Your task to perform on an android device: open app "HBO Max: Stream TV & Movies" (install if not already installed) Image 0: 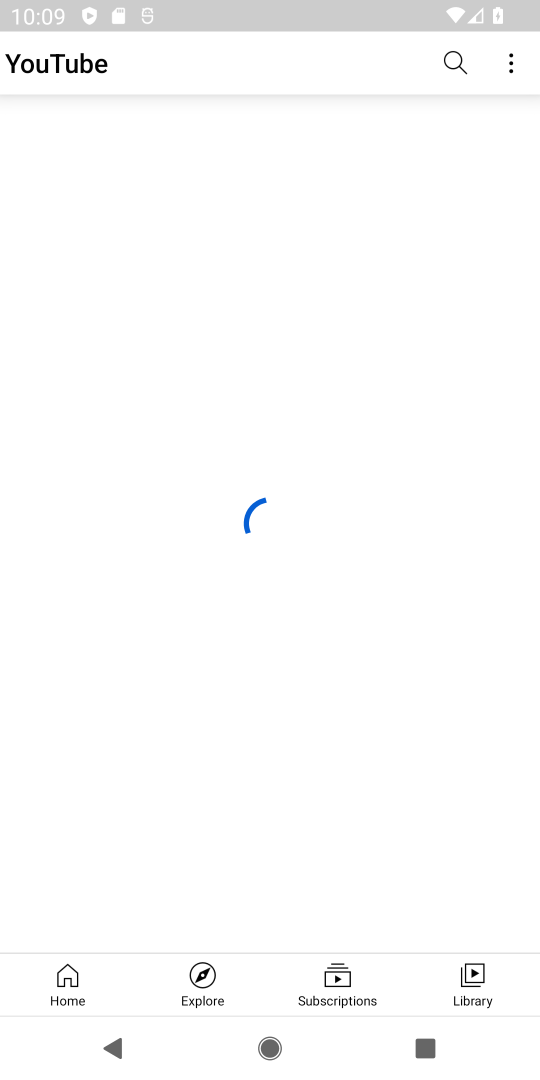
Step 0: press home button
Your task to perform on an android device: open app "HBO Max: Stream TV & Movies" (install if not already installed) Image 1: 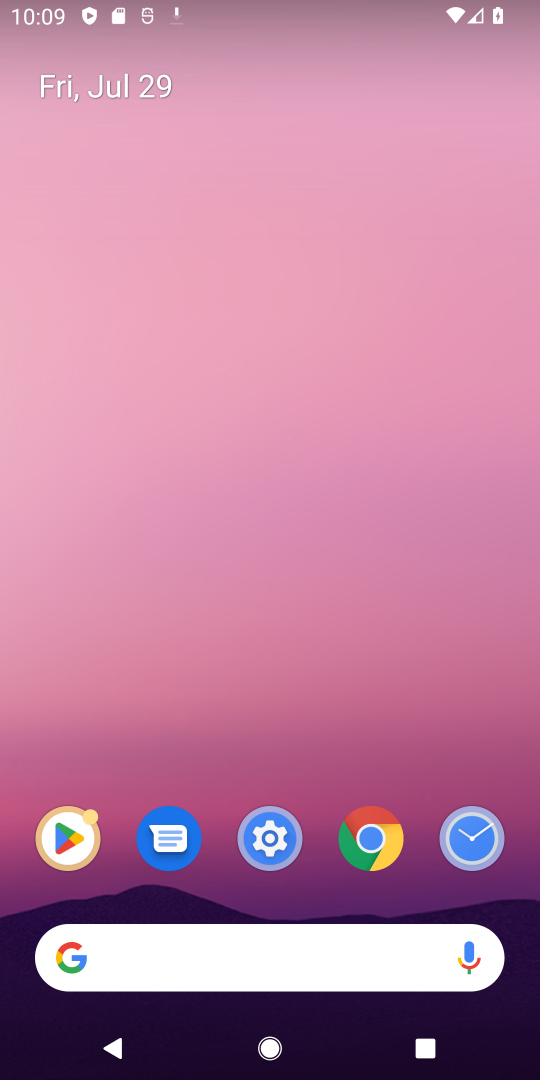
Step 1: drag from (315, 957) to (538, 19)
Your task to perform on an android device: open app "HBO Max: Stream TV & Movies" (install if not already installed) Image 2: 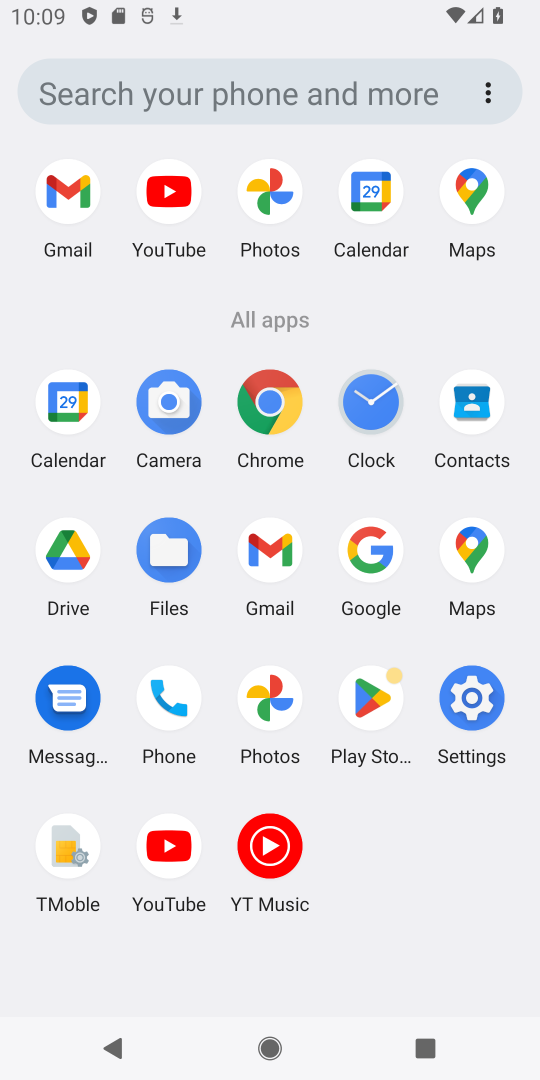
Step 2: drag from (374, 701) to (284, 552)
Your task to perform on an android device: open app "HBO Max: Stream TV & Movies" (install if not already installed) Image 3: 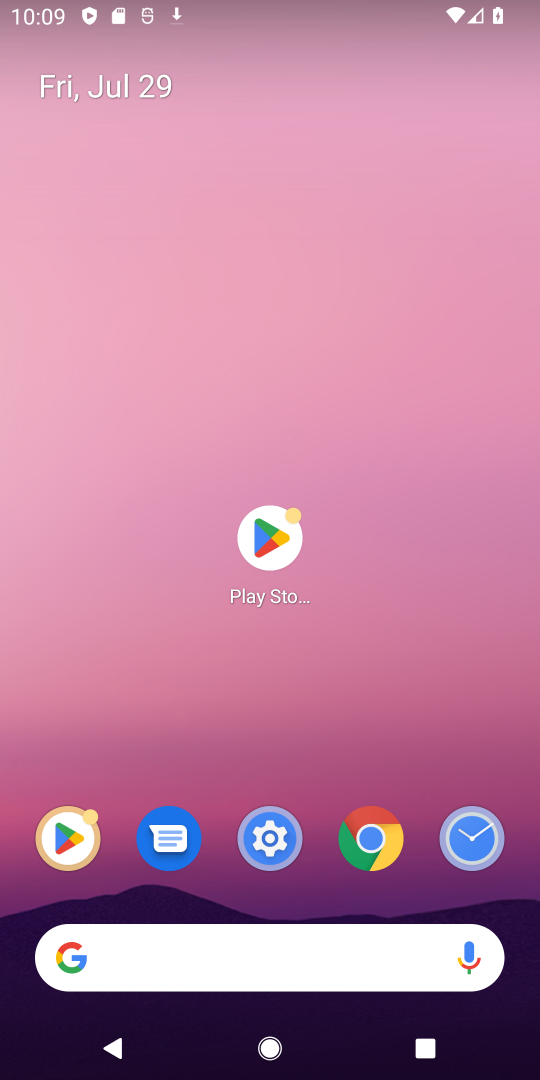
Step 3: click (264, 526)
Your task to perform on an android device: open app "HBO Max: Stream TV & Movies" (install if not already installed) Image 4: 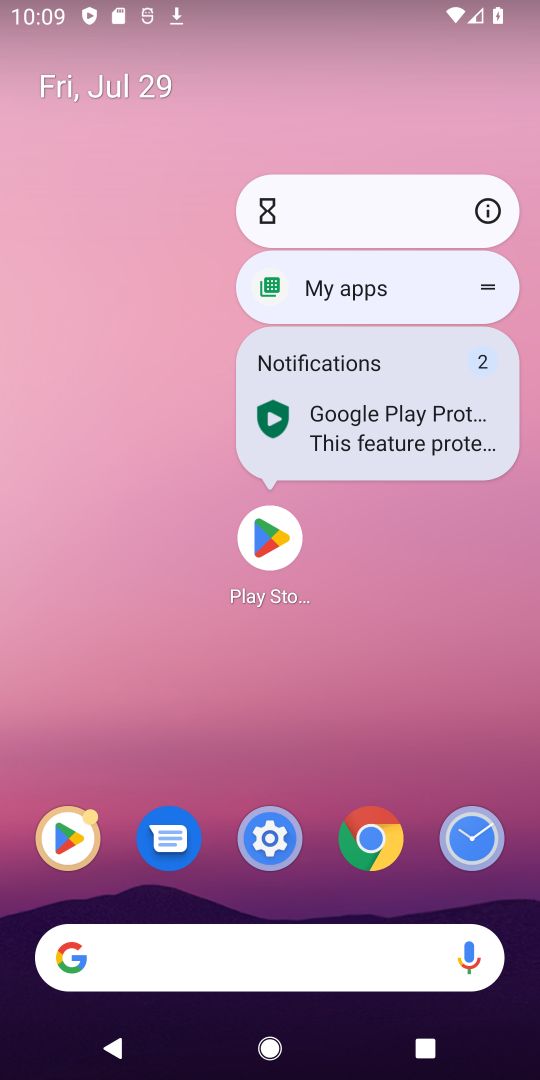
Step 4: click (261, 549)
Your task to perform on an android device: open app "HBO Max: Stream TV & Movies" (install if not already installed) Image 5: 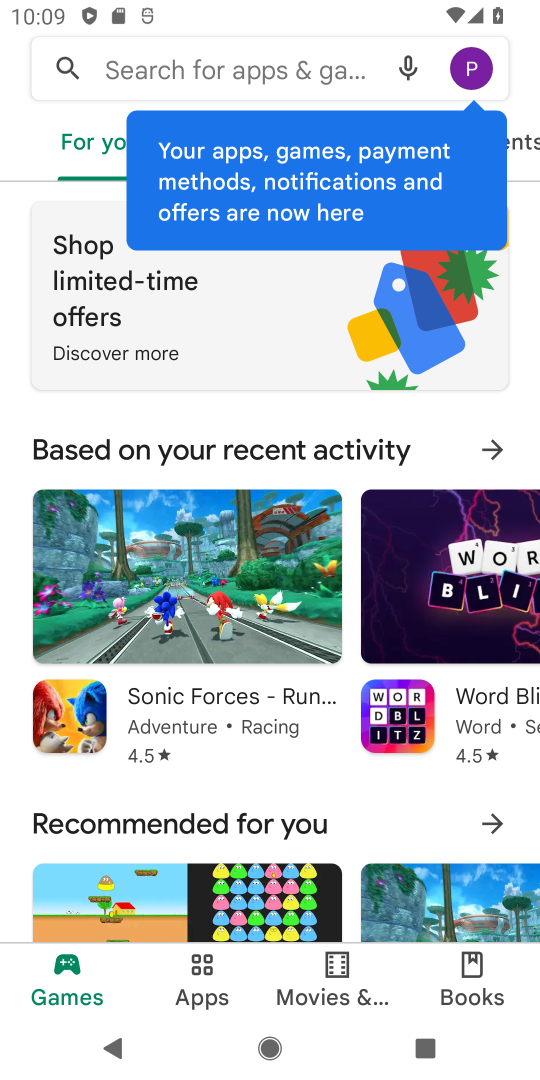
Step 5: click (328, 65)
Your task to perform on an android device: open app "HBO Max: Stream TV & Movies" (install if not already installed) Image 6: 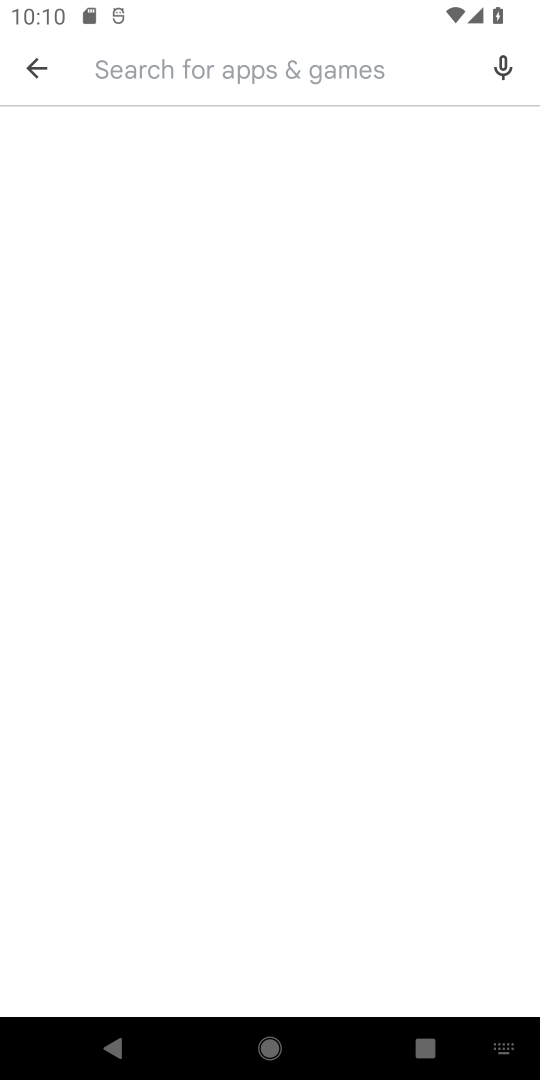
Step 6: type ""HBO Max: Stream TV & Movies"
Your task to perform on an android device: open app "HBO Max: Stream TV & Movies" (install if not already installed) Image 7: 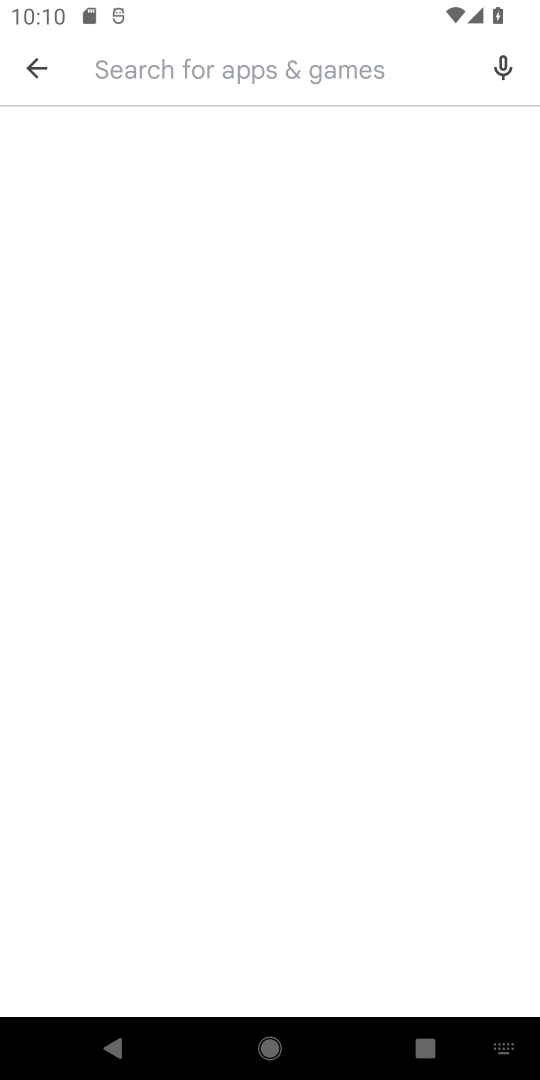
Step 7: type ""HBO Max: Stream TV & Movies"
Your task to perform on an android device: open app "HBO Max: Stream TV & Movies" (install if not already installed) Image 8: 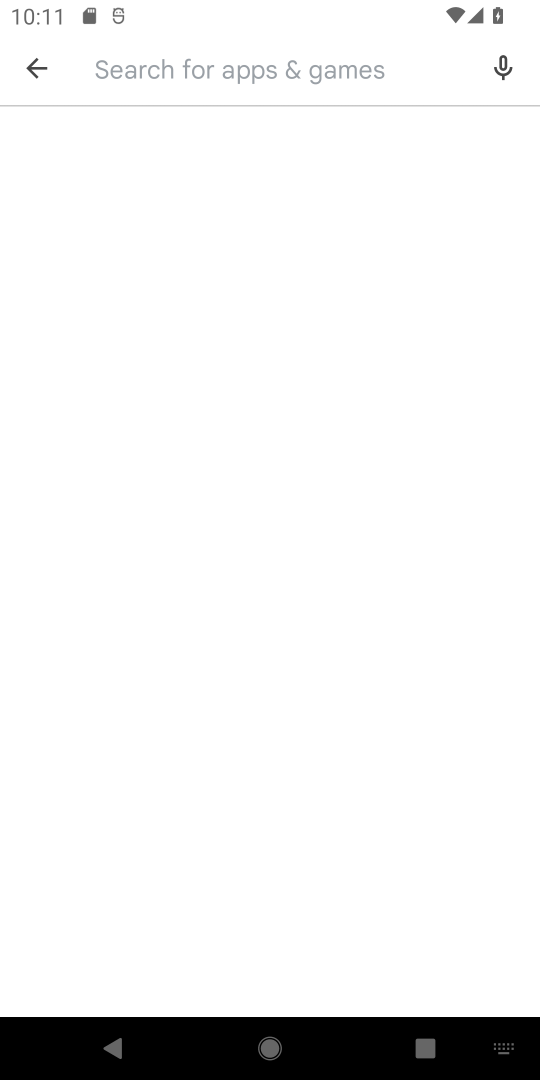
Step 8: type "HBO max: stream tv & movies"
Your task to perform on an android device: open app "HBO Max: Stream TV & Movies" (install if not already installed) Image 9: 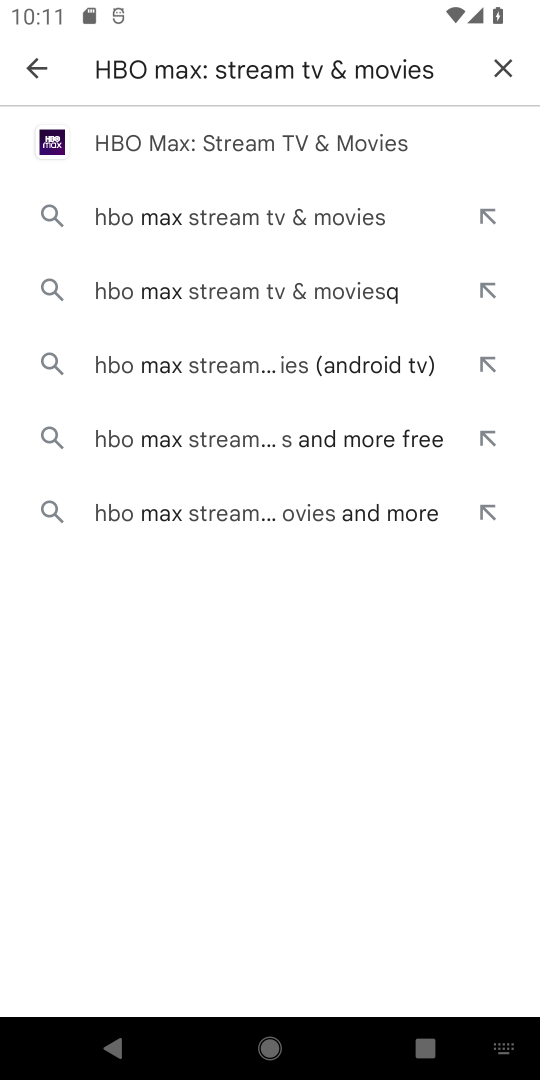
Step 9: click (189, 141)
Your task to perform on an android device: open app "HBO Max: Stream TV & Movies" (install if not already installed) Image 10: 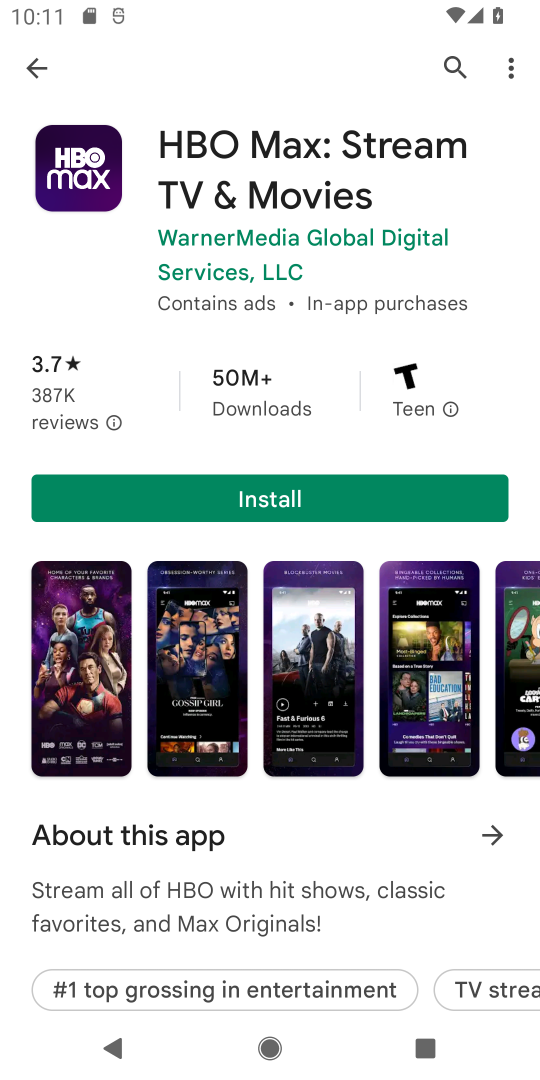
Step 10: click (274, 499)
Your task to perform on an android device: open app "HBO Max: Stream TV & Movies" (install if not already installed) Image 11: 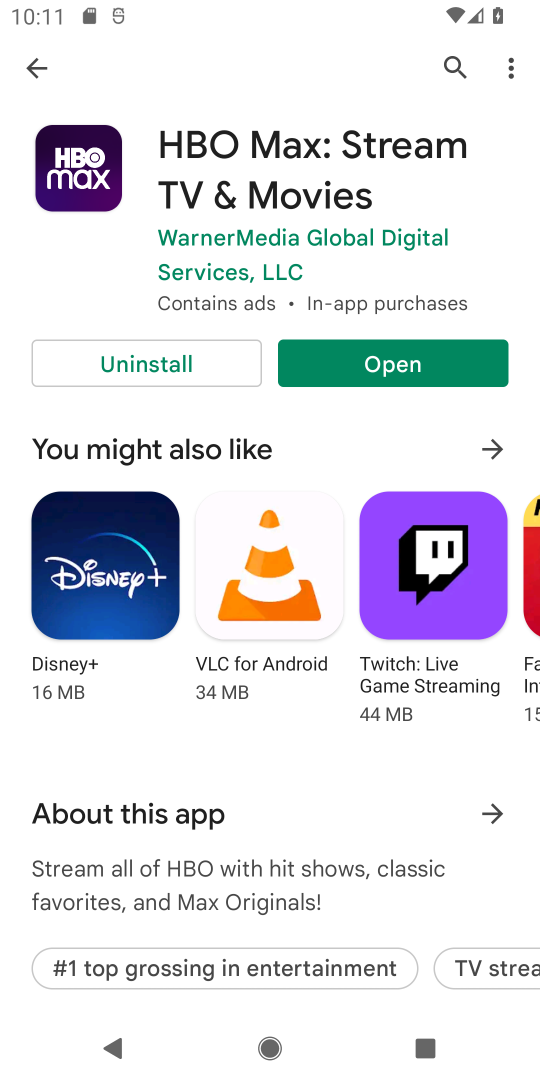
Step 11: click (378, 361)
Your task to perform on an android device: open app "HBO Max: Stream TV & Movies" (install if not already installed) Image 12: 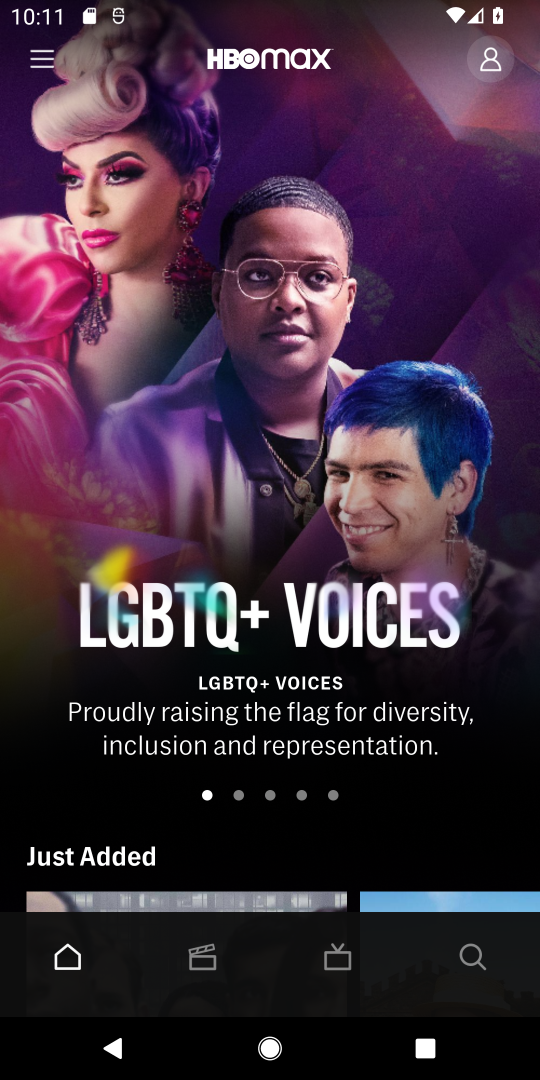
Step 12: task complete